Your task to perform on an android device: Find coffee shops on Maps Image 0: 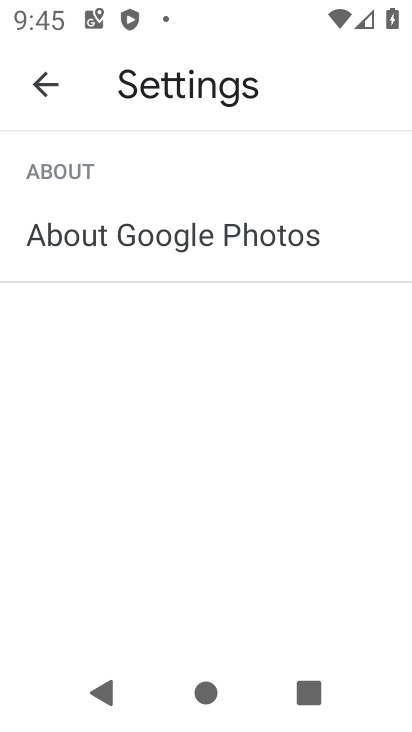
Step 0: press home button
Your task to perform on an android device: Find coffee shops on Maps Image 1: 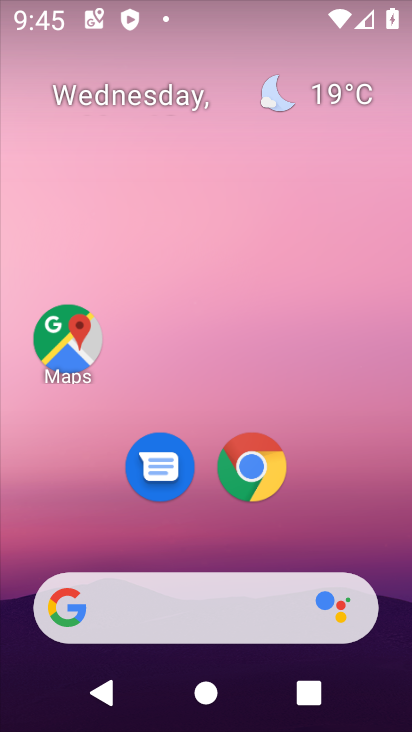
Step 1: click (64, 338)
Your task to perform on an android device: Find coffee shops on Maps Image 2: 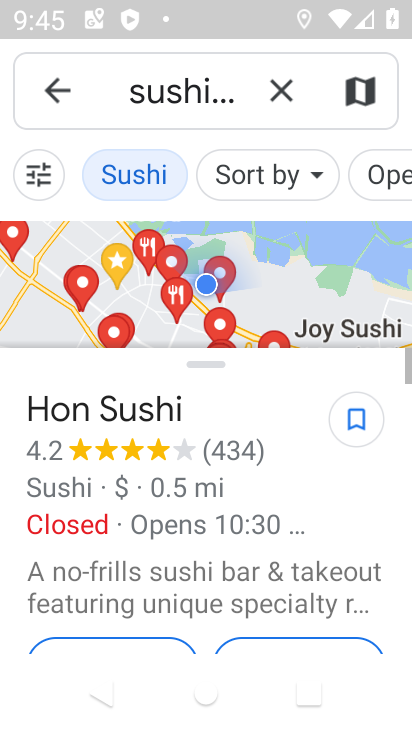
Step 2: click (285, 92)
Your task to perform on an android device: Find coffee shops on Maps Image 3: 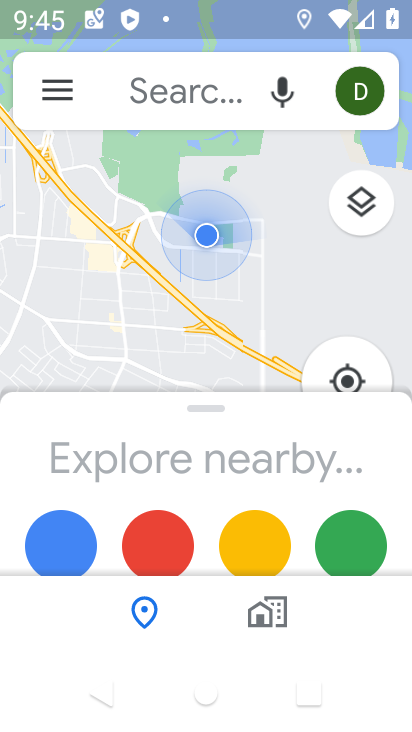
Step 3: click (168, 98)
Your task to perform on an android device: Find coffee shops on Maps Image 4: 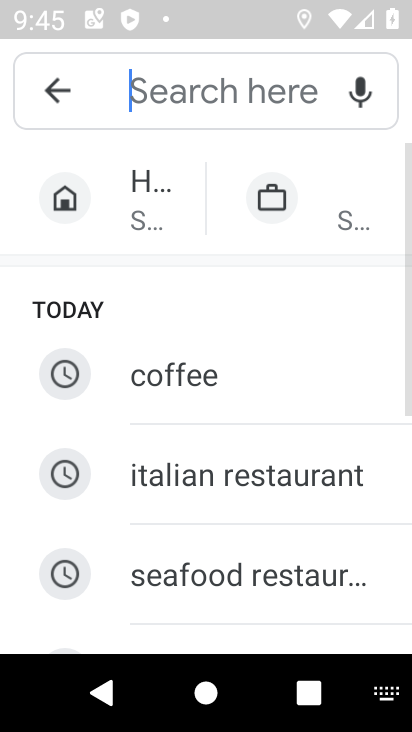
Step 4: click (241, 402)
Your task to perform on an android device: Find coffee shops on Maps Image 5: 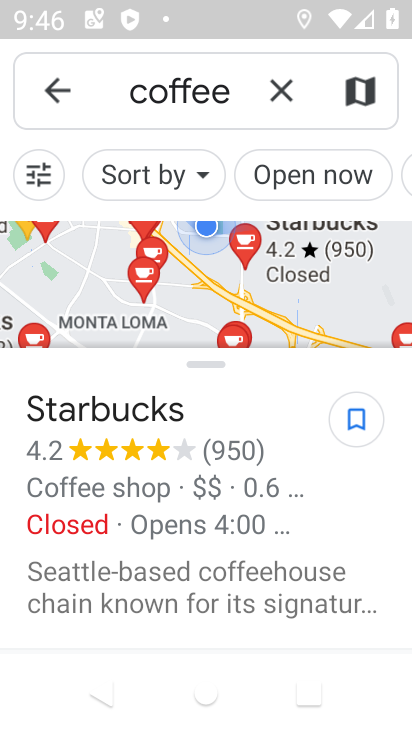
Step 5: task complete